Your task to perform on an android device: find snoozed emails in the gmail app Image 0: 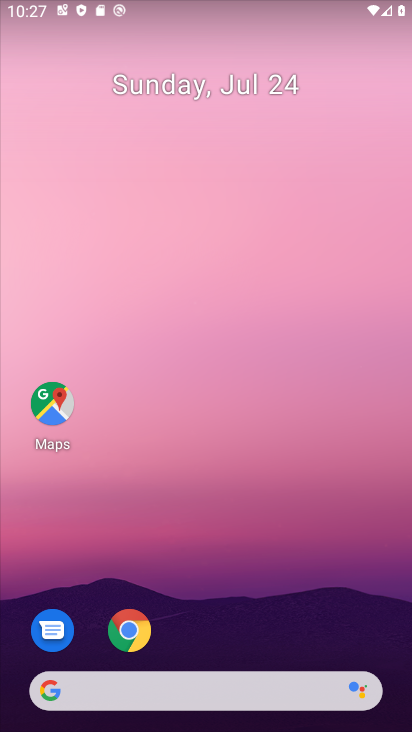
Step 0: drag from (255, 629) to (283, 118)
Your task to perform on an android device: find snoozed emails in the gmail app Image 1: 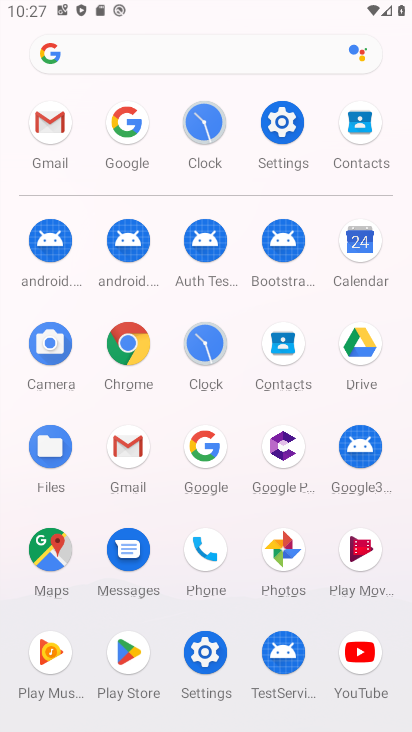
Step 1: click (25, 125)
Your task to perform on an android device: find snoozed emails in the gmail app Image 2: 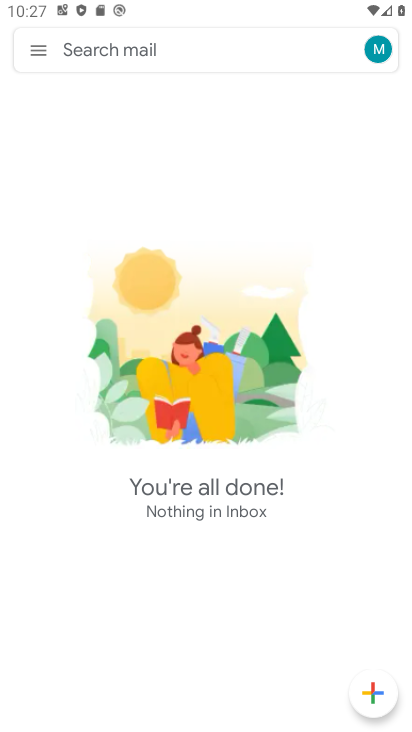
Step 2: click (43, 56)
Your task to perform on an android device: find snoozed emails in the gmail app Image 3: 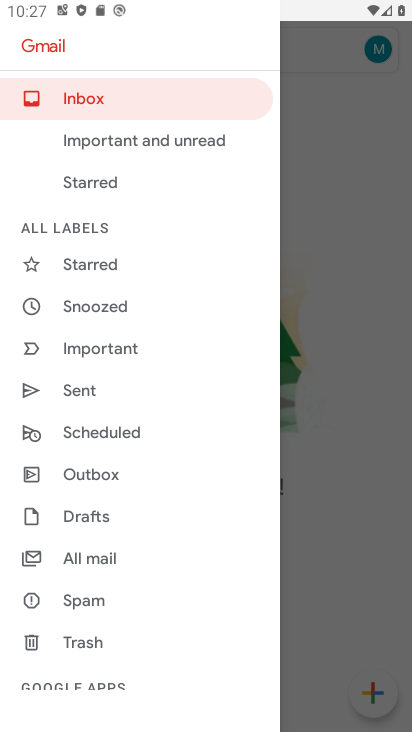
Step 3: click (123, 304)
Your task to perform on an android device: find snoozed emails in the gmail app Image 4: 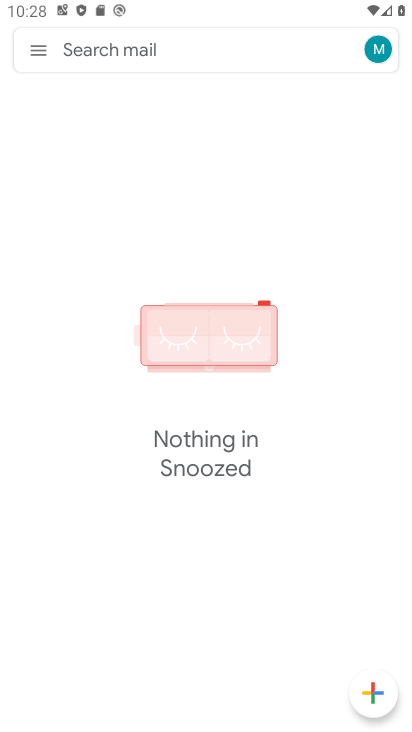
Step 4: task complete